Your task to perform on an android device: Open the stopwatch Image 0: 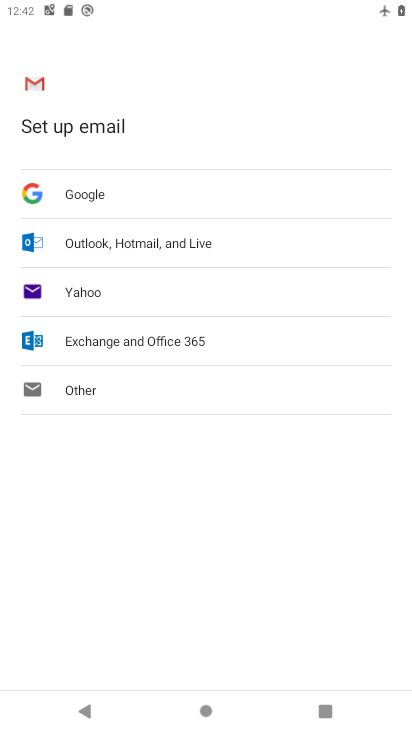
Step 0: press home button
Your task to perform on an android device: Open the stopwatch Image 1: 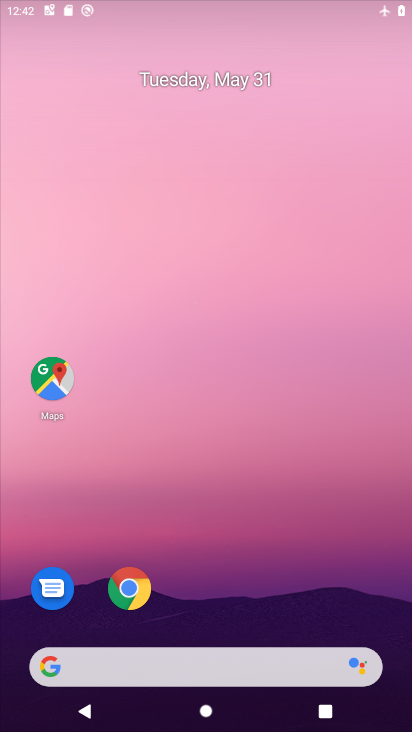
Step 1: drag from (212, 683) to (215, 82)
Your task to perform on an android device: Open the stopwatch Image 2: 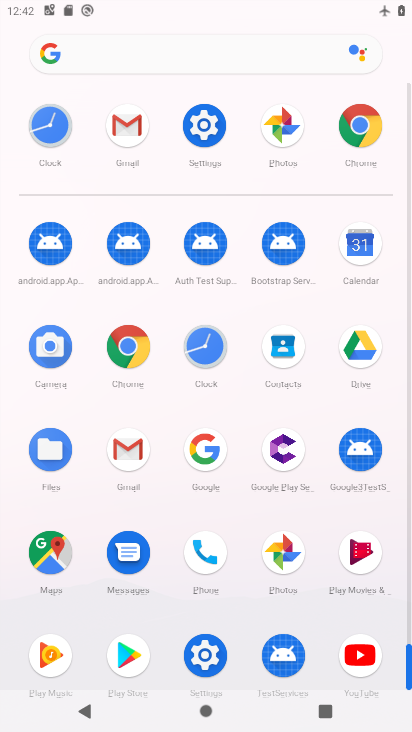
Step 2: click (225, 352)
Your task to perform on an android device: Open the stopwatch Image 3: 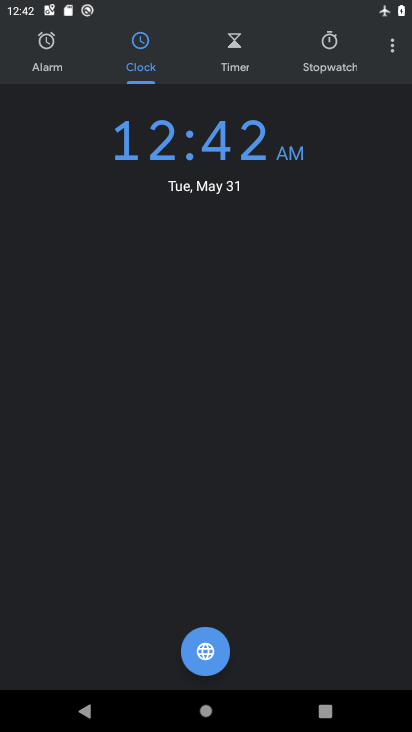
Step 3: click (332, 63)
Your task to perform on an android device: Open the stopwatch Image 4: 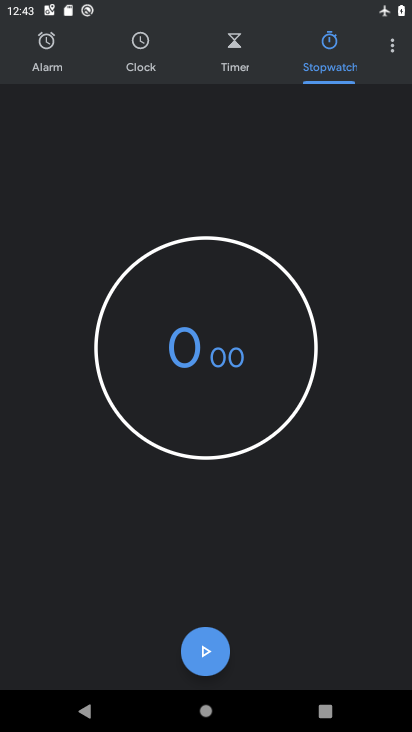
Step 4: click (228, 648)
Your task to perform on an android device: Open the stopwatch Image 5: 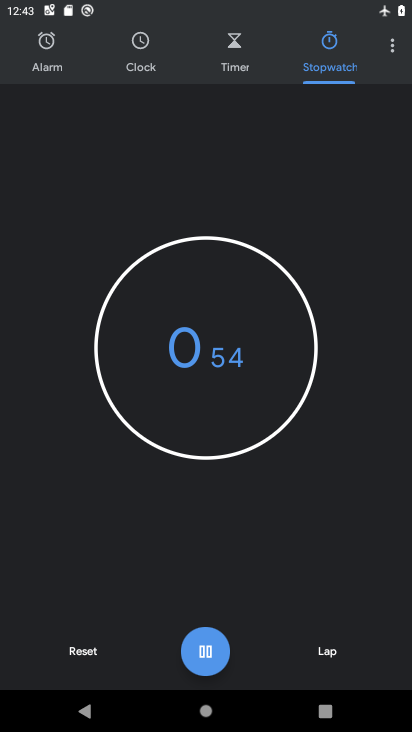
Step 5: task complete